Your task to perform on an android device: change alarm snooze length Image 0: 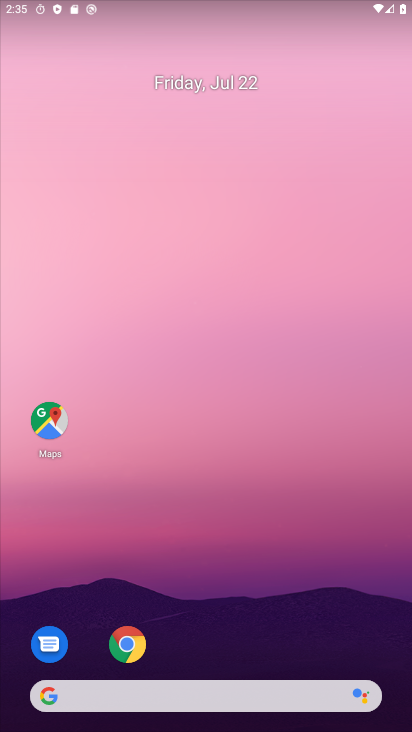
Step 0: drag from (258, 602) to (311, 67)
Your task to perform on an android device: change alarm snooze length Image 1: 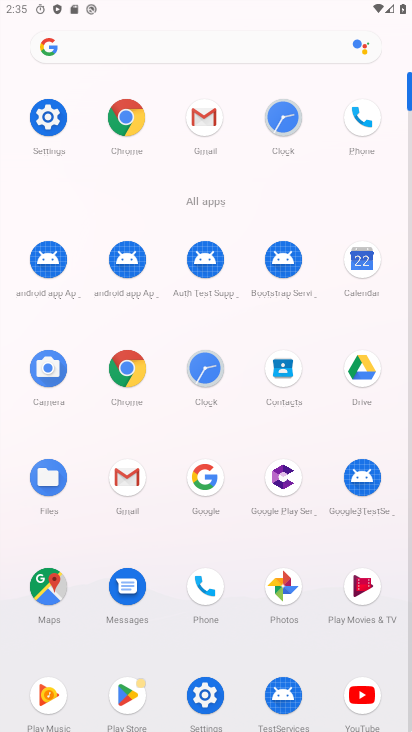
Step 1: click (284, 109)
Your task to perform on an android device: change alarm snooze length Image 2: 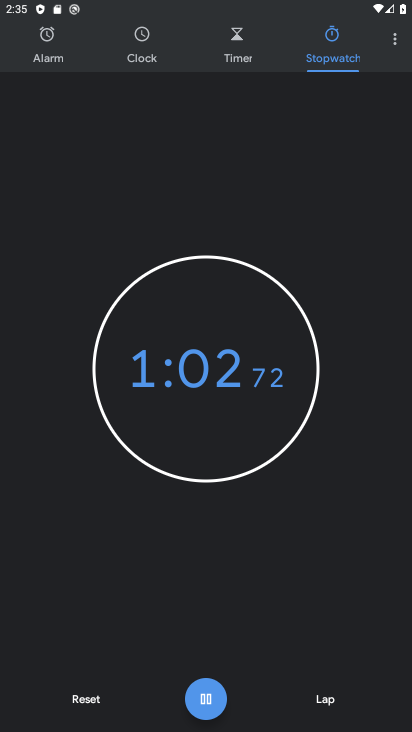
Step 2: click (394, 35)
Your task to perform on an android device: change alarm snooze length Image 3: 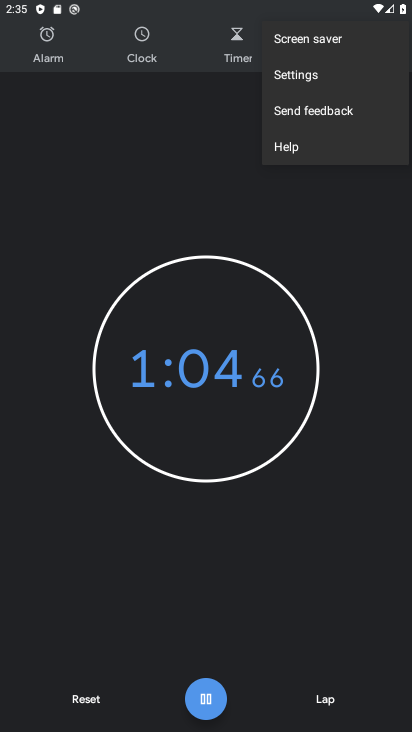
Step 3: click (297, 80)
Your task to perform on an android device: change alarm snooze length Image 4: 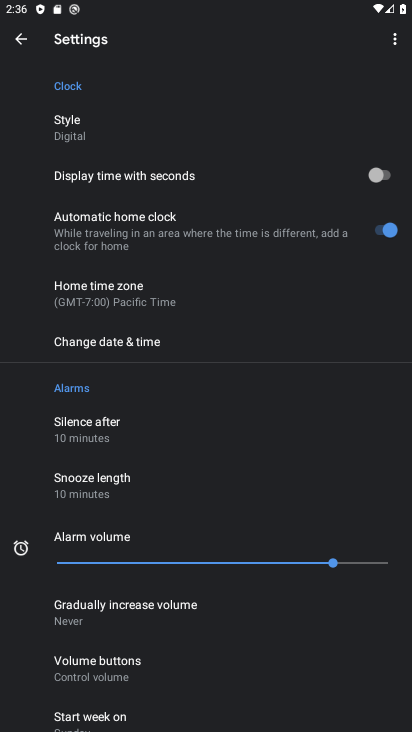
Step 4: click (83, 489)
Your task to perform on an android device: change alarm snooze length Image 5: 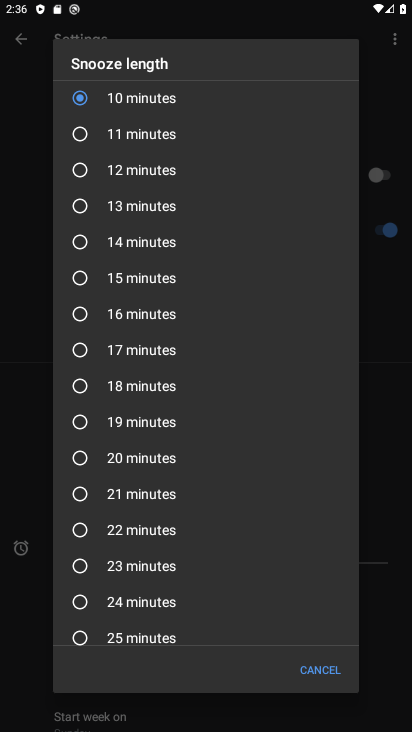
Step 5: click (75, 278)
Your task to perform on an android device: change alarm snooze length Image 6: 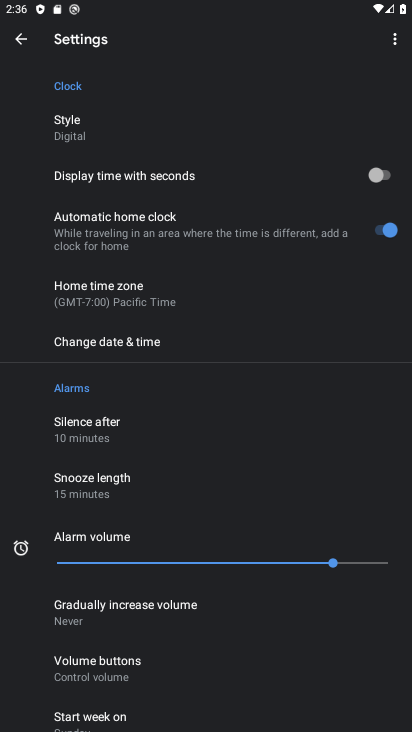
Step 6: task complete